Your task to perform on an android device: Search for dell alienware on amazon, select the first entry, and add it to the cart. Image 0: 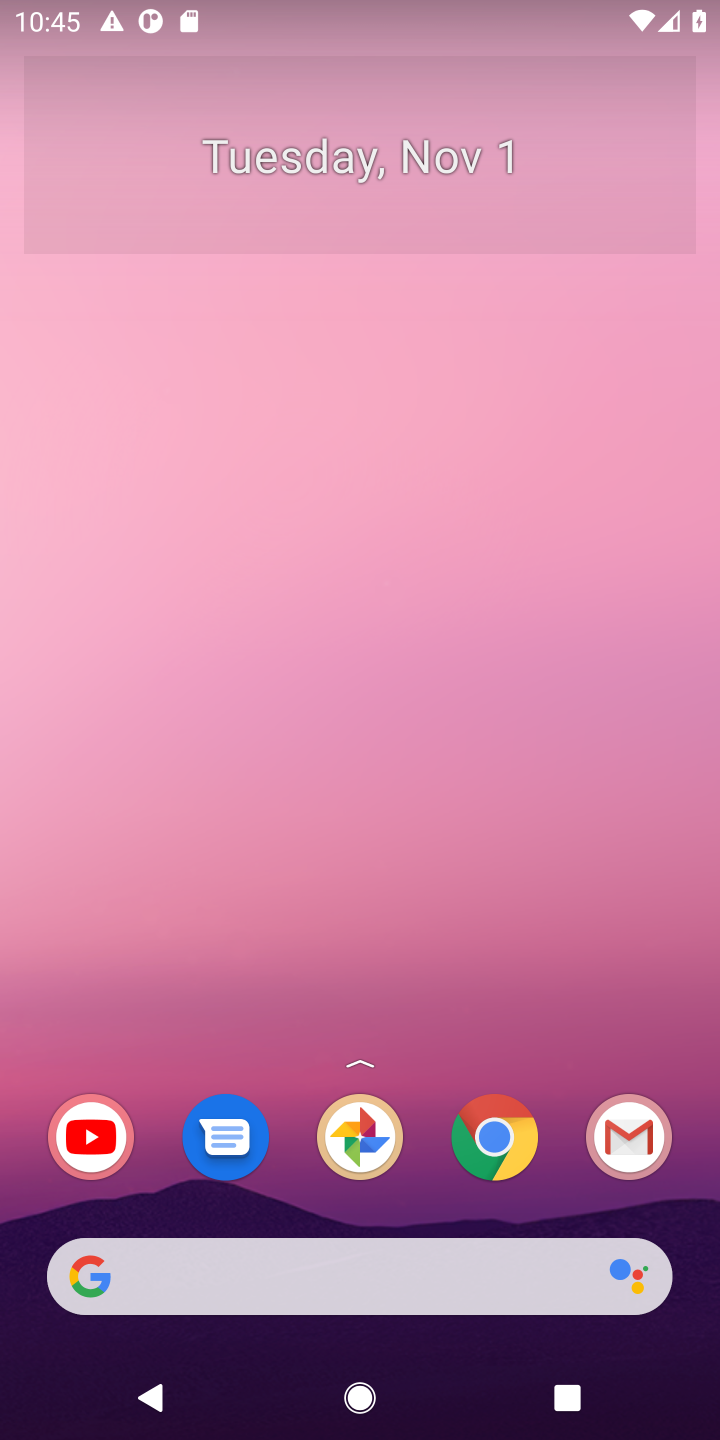
Step 0: press home button
Your task to perform on an android device: Search for dell alienware on amazon, select the first entry, and add it to the cart. Image 1: 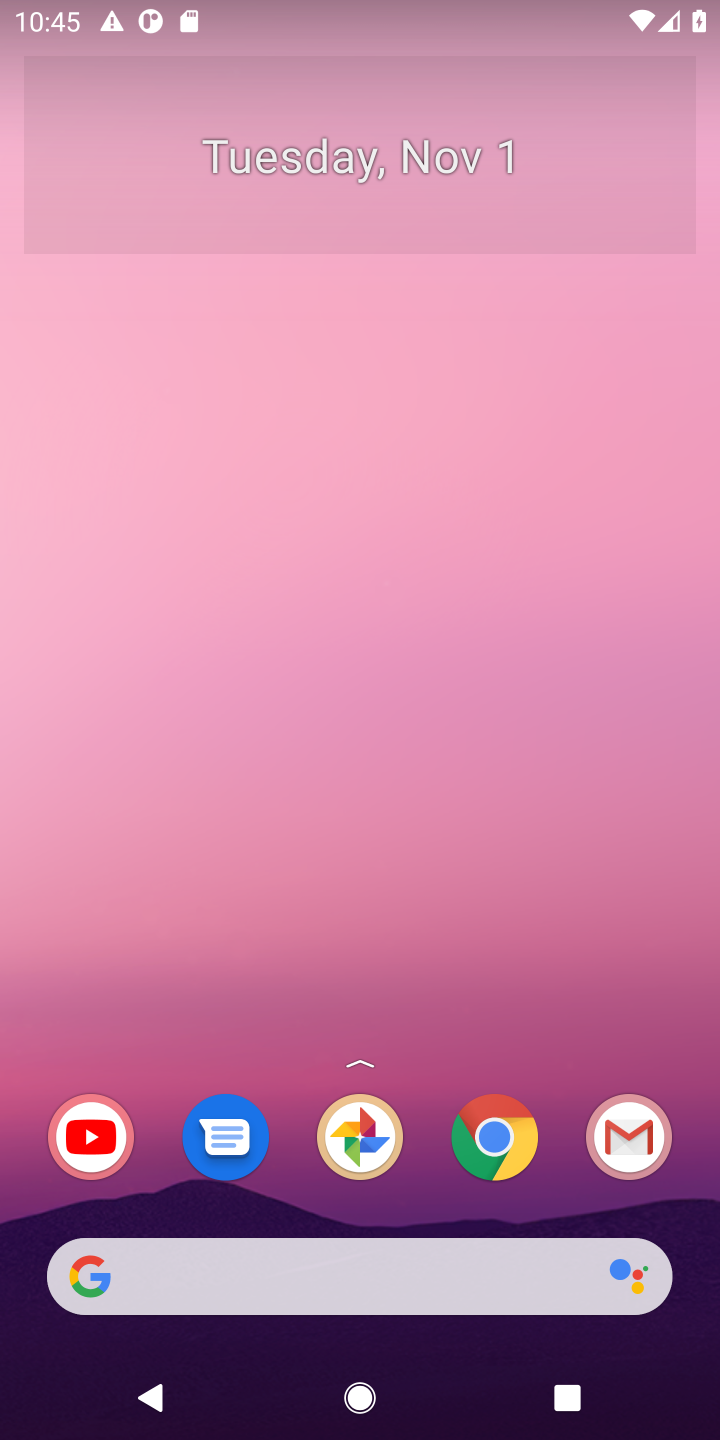
Step 1: click (335, 1266)
Your task to perform on an android device: Search for dell alienware on amazon, select the first entry, and add it to the cart. Image 2: 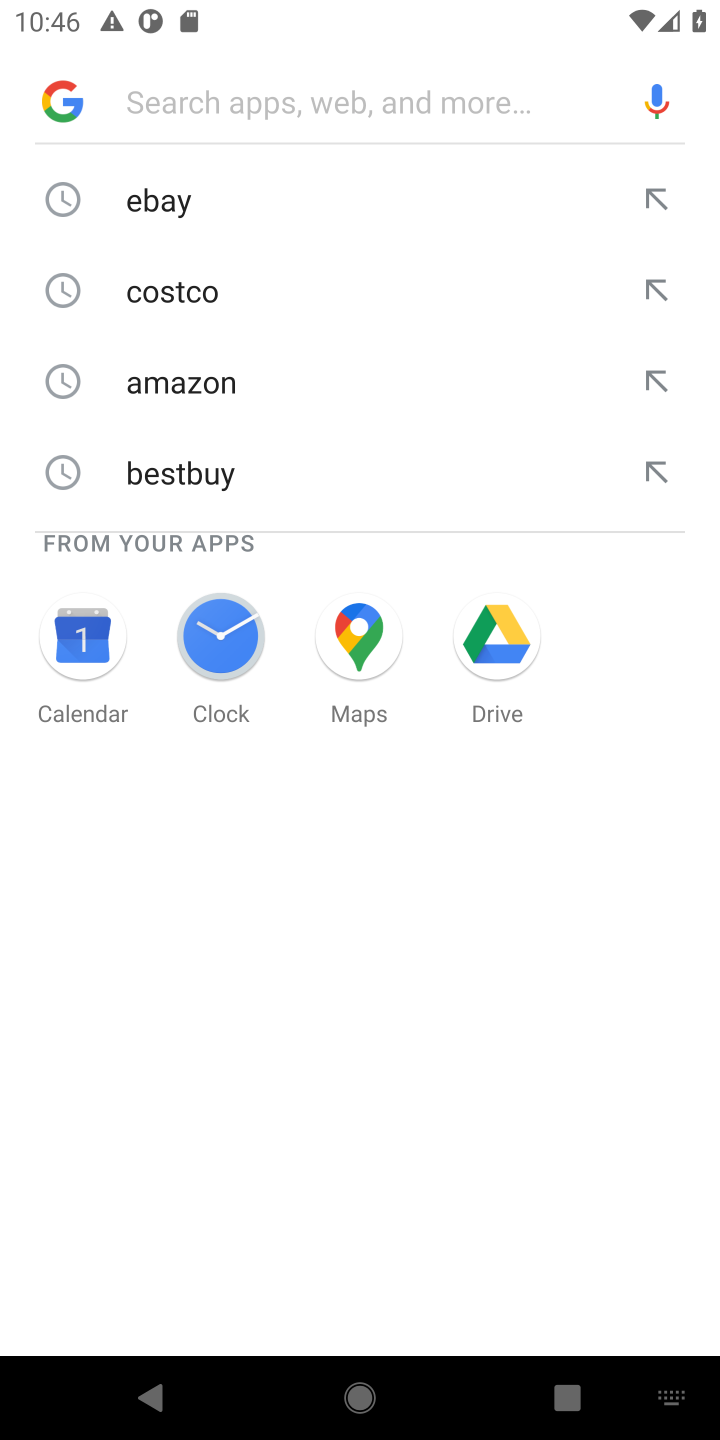
Step 2: type "amazon"
Your task to perform on an android device: Search for dell alienware on amazon, select the first entry, and add it to the cart. Image 3: 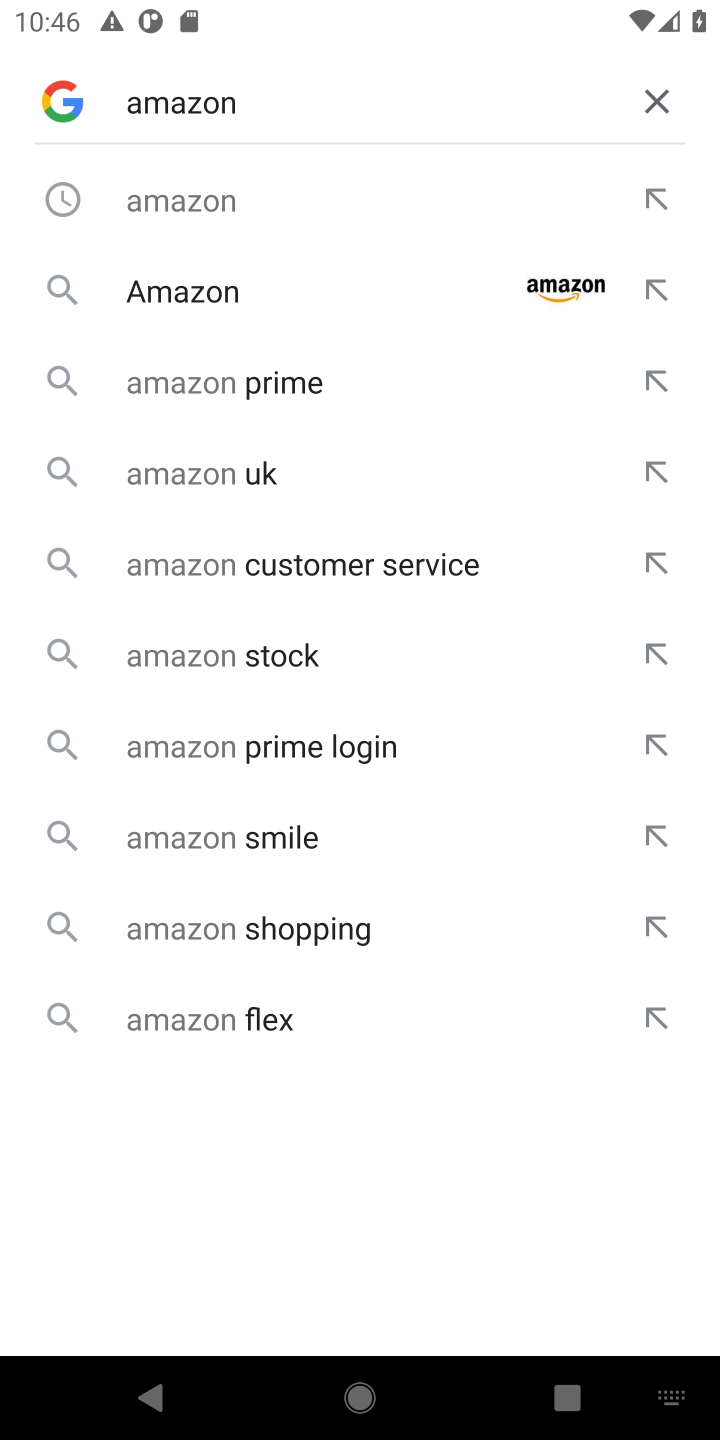
Step 3: click (319, 286)
Your task to perform on an android device: Search for dell alienware on amazon, select the first entry, and add it to the cart. Image 4: 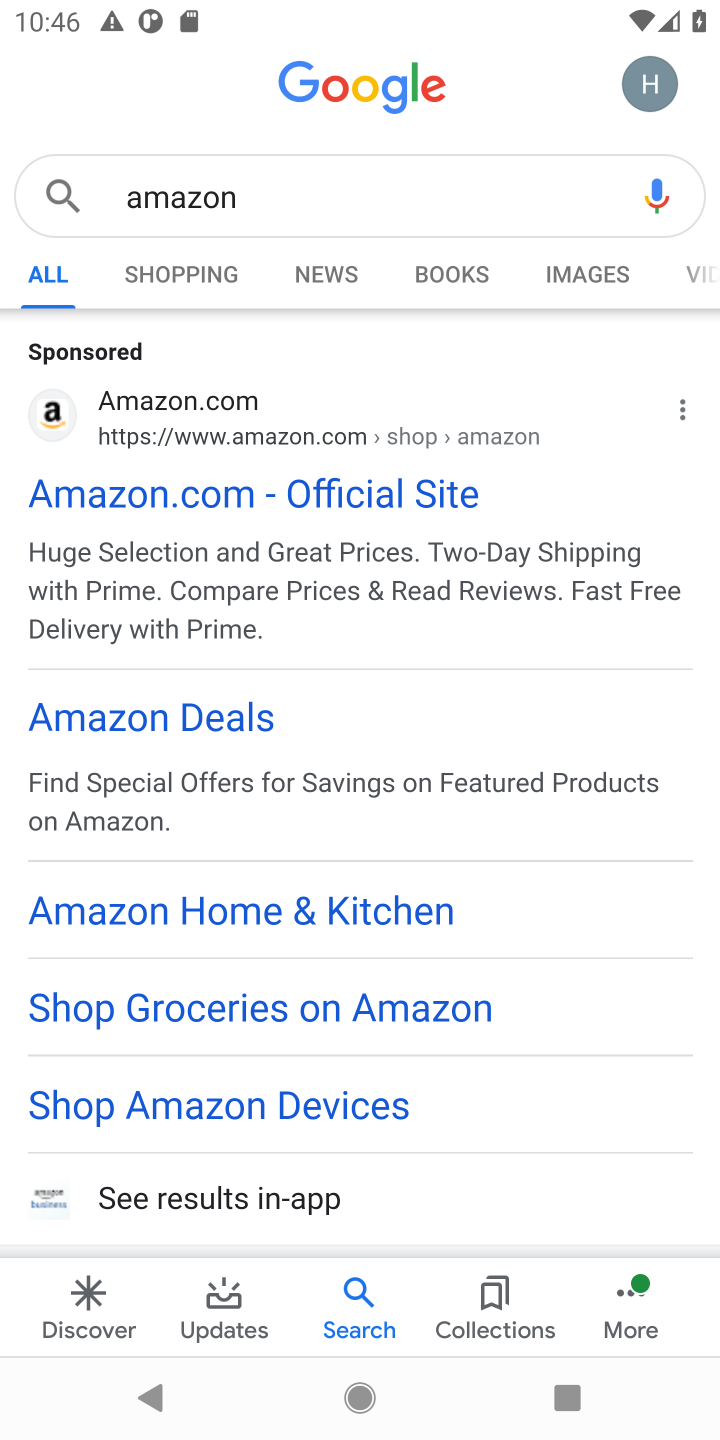
Step 4: click (183, 410)
Your task to perform on an android device: Search for dell alienware on amazon, select the first entry, and add it to the cart. Image 5: 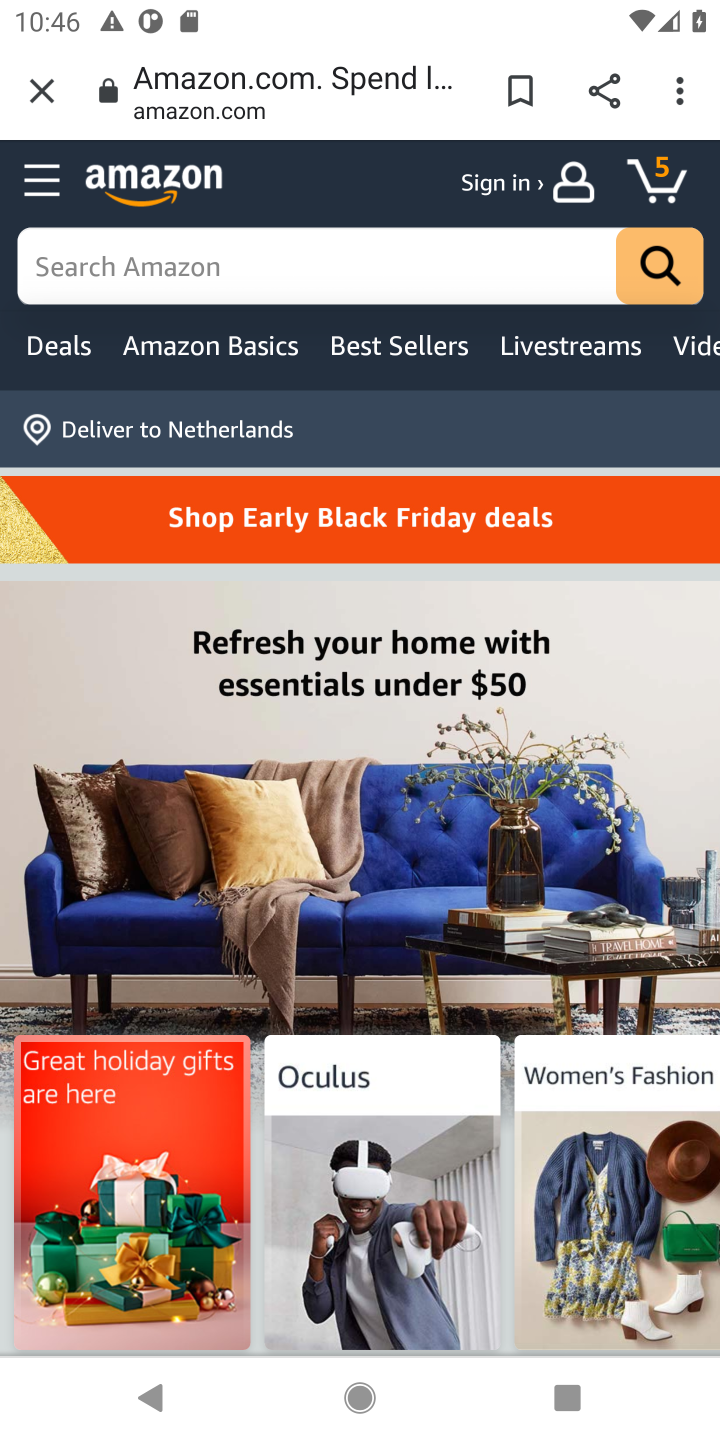
Step 5: click (293, 271)
Your task to perform on an android device: Search for dell alienware on amazon, select the first entry, and add it to the cart. Image 6: 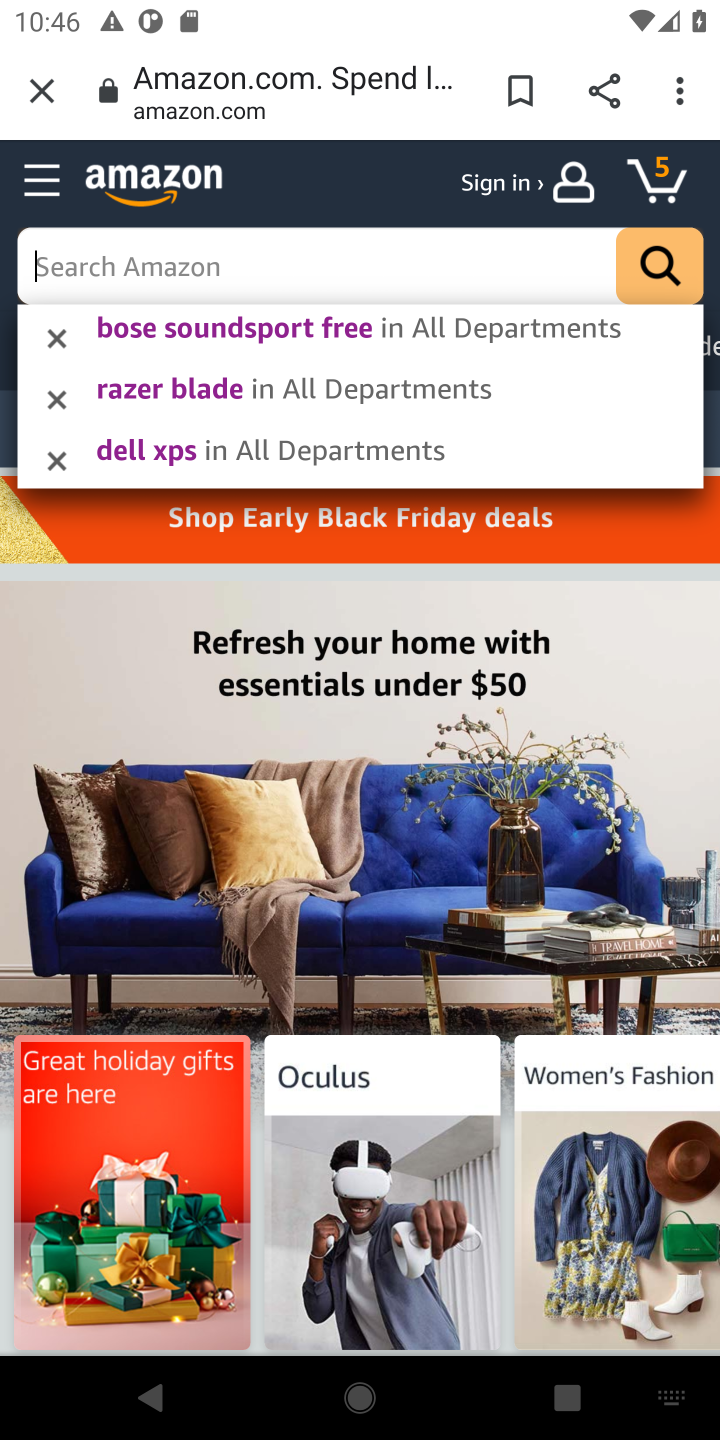
Step 6: type "dell alienware"
Your task to perform on an android device: Search for dell alienware on amazon, select the first entry, and add it to the cart. Image 7: 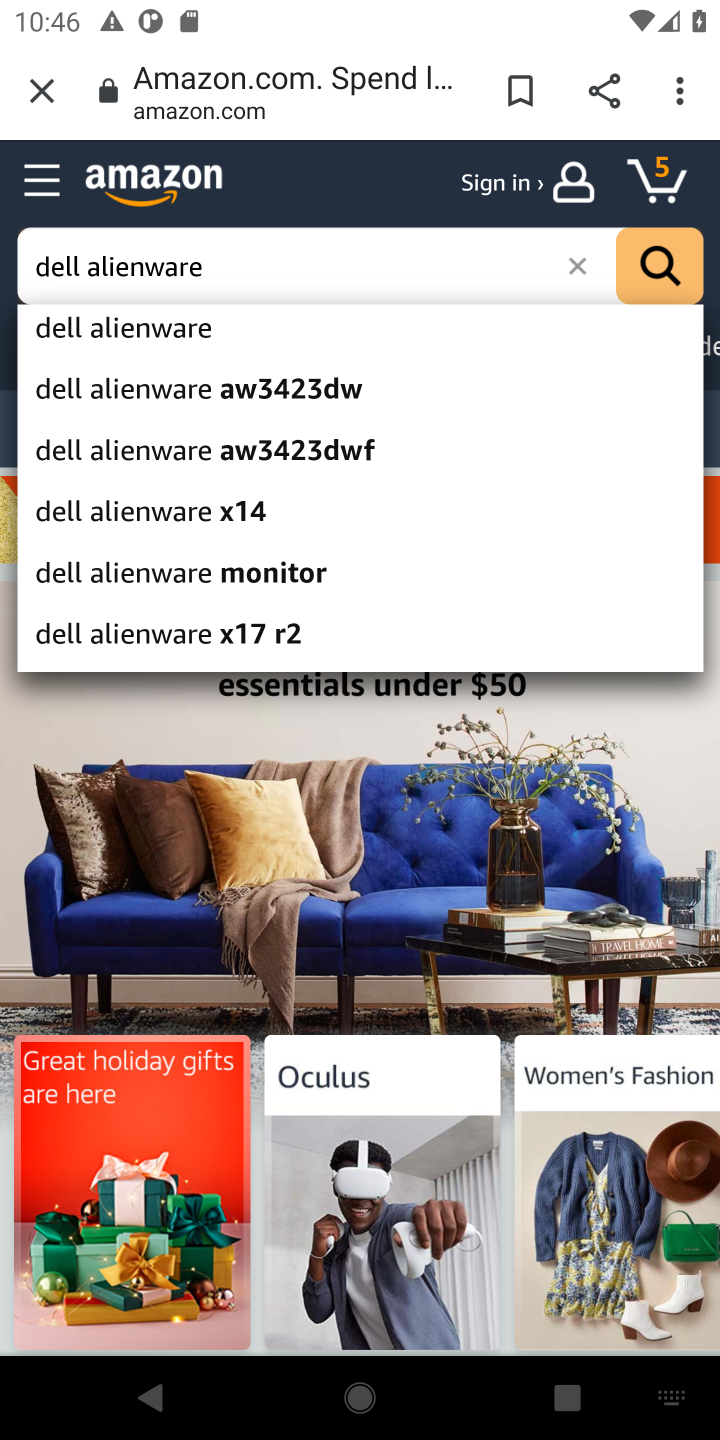
Step 7: click (133, 331)
Your task to perform on an android device: Search for dell alienware on amazon, select the first entry, and add it to the cart. Image 8: 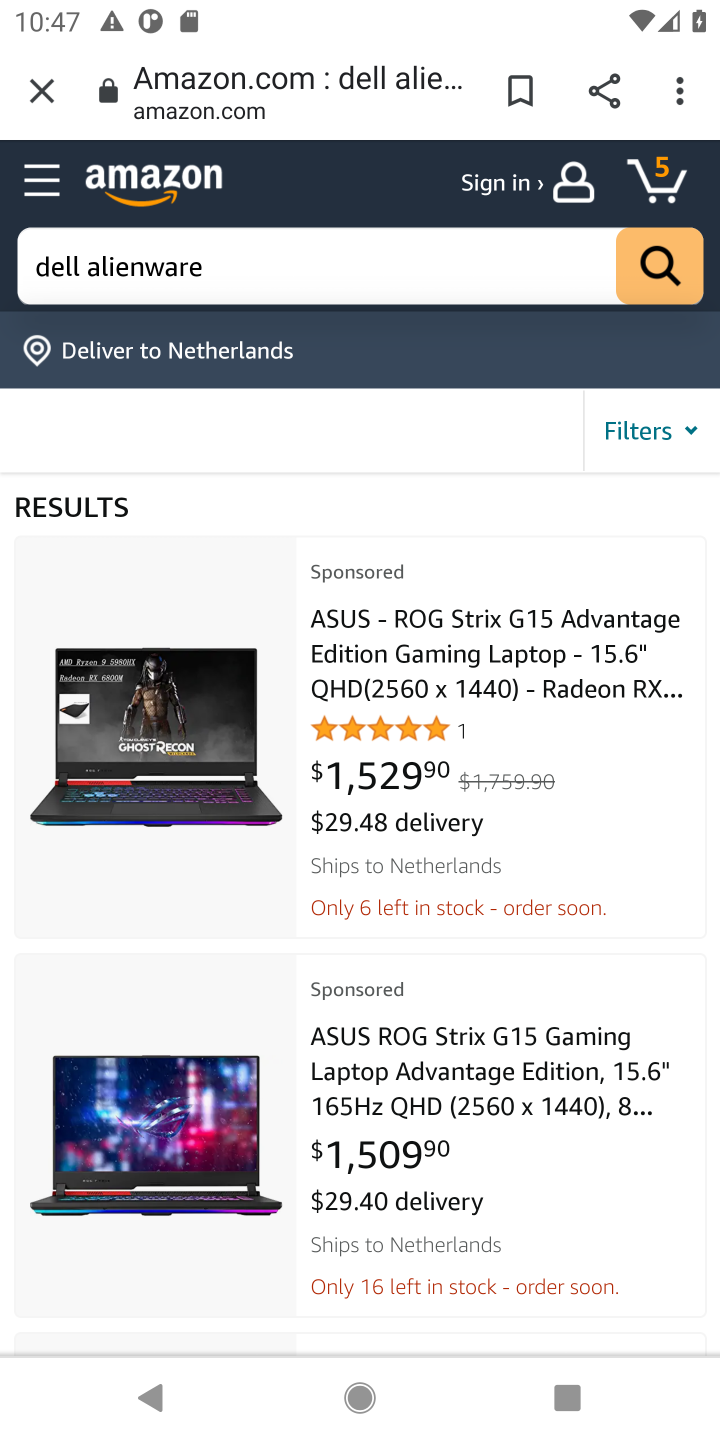
Step 8: click (370, 627)
Your task to perform on an android device: Search for dell alienware on amazon, select the first entry, and add it to the cart. Image 9: 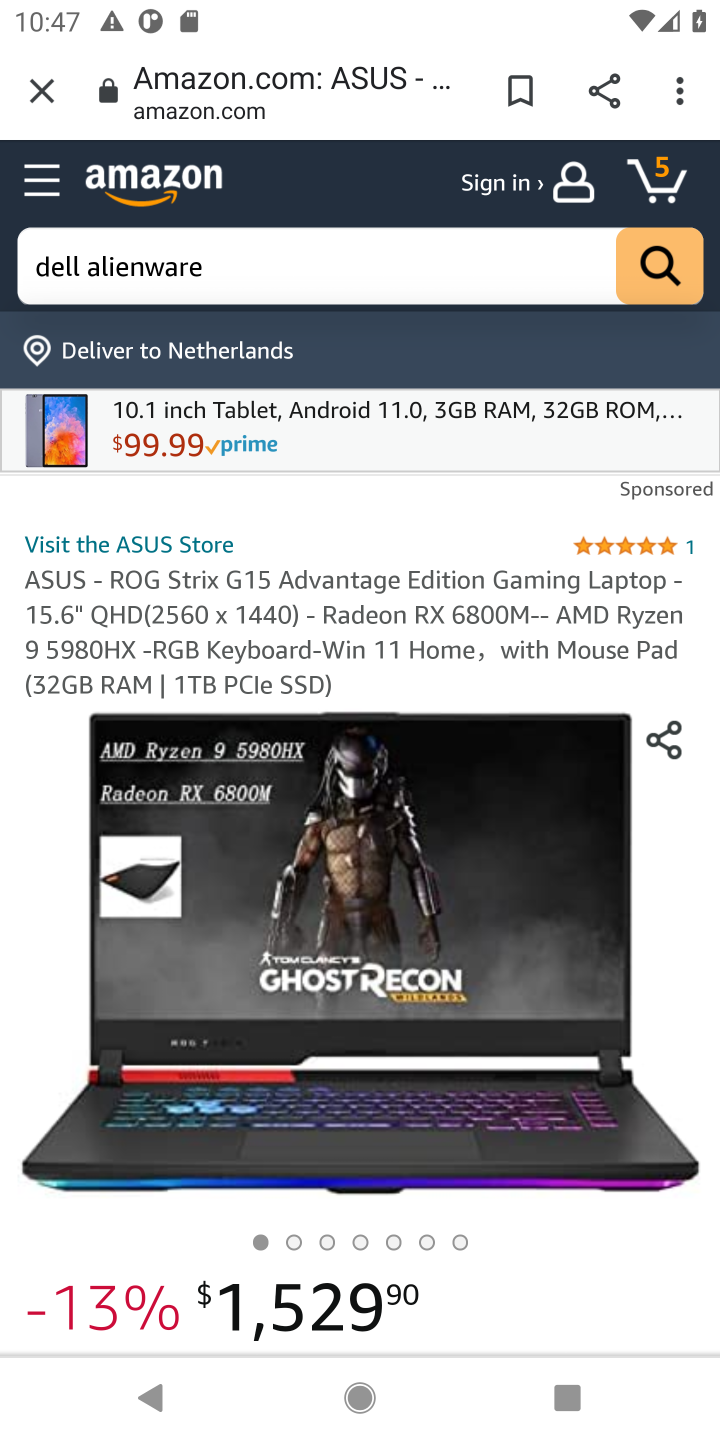
Step 9: drag from (419, 984) to (420, 270)
Your task to perform on an android device: Search for dell alienware on amazon, select the first entry, and add it to the cart. Image 10: 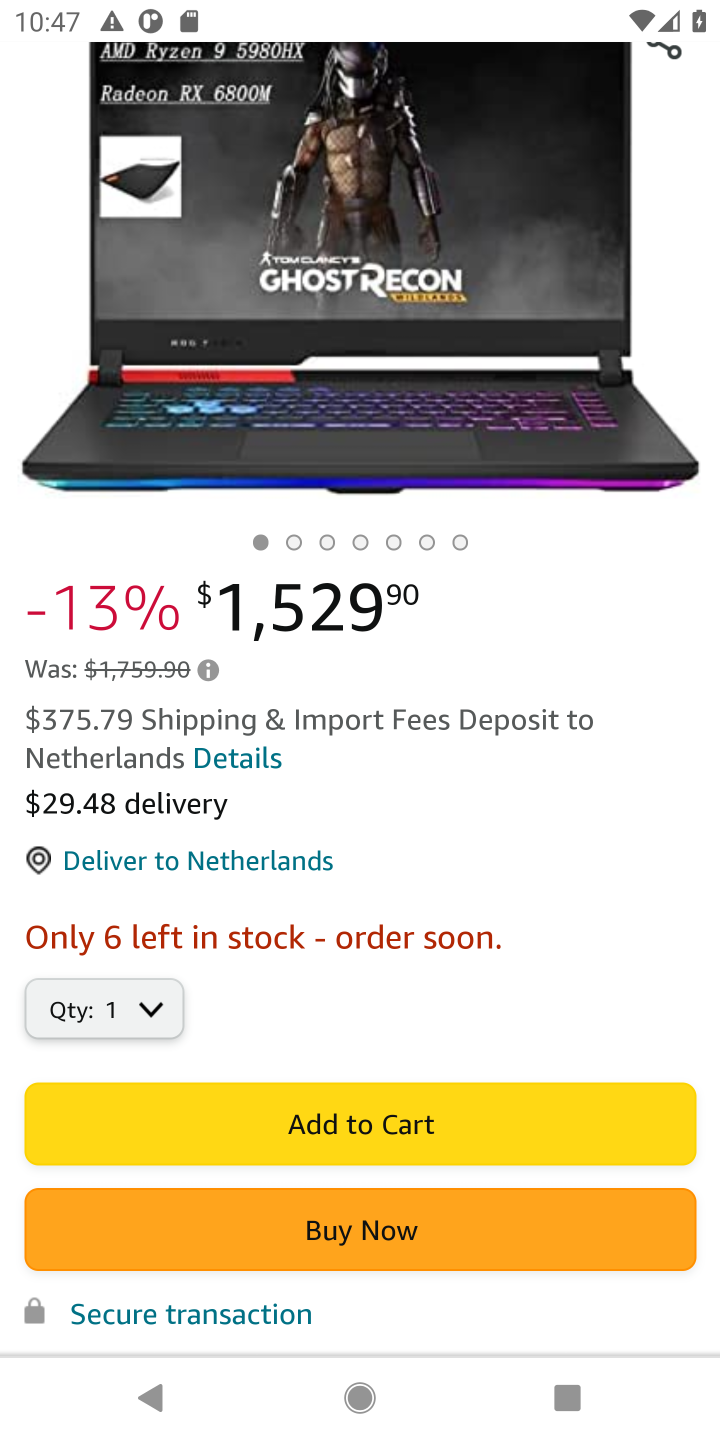
Step 10: click (353, 1122)
Your task to perform on an android device: Search for dell alienware on amazon, select the first entry, and add it to the cart. Image 11: 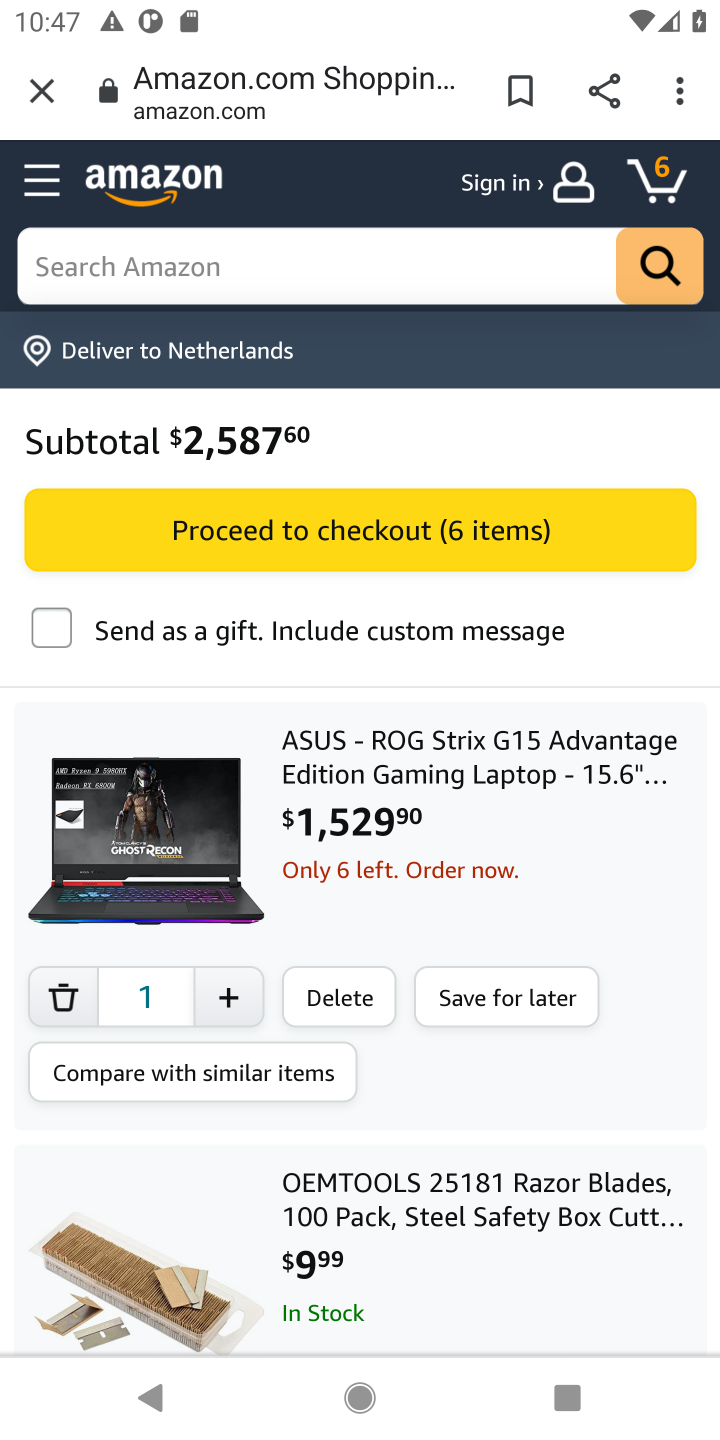
Step 11: task complete